Your task to perform on an android device: create a new album in the google photos Image 0: 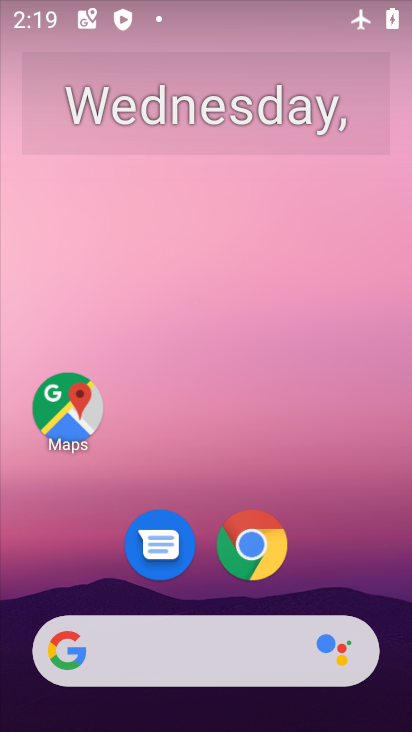
Step 0: drag from (331, 527) to (328, 189)
Your task to perform on an android device: create a new album in the google photos Image 1: 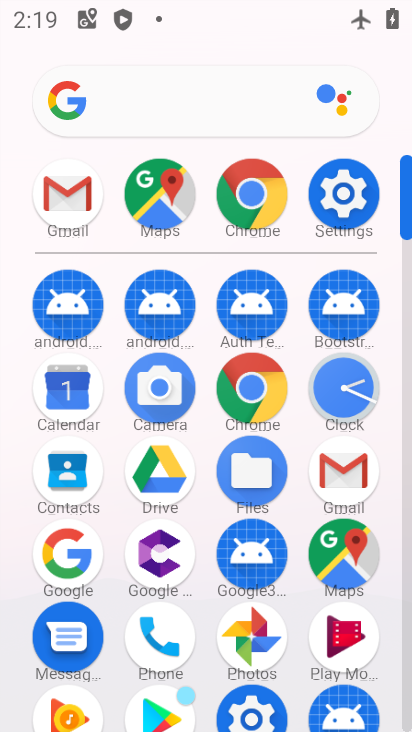
Step 1: click (260, 637)
Your task to perform on an android device: create a new album in the google photos Image 2: 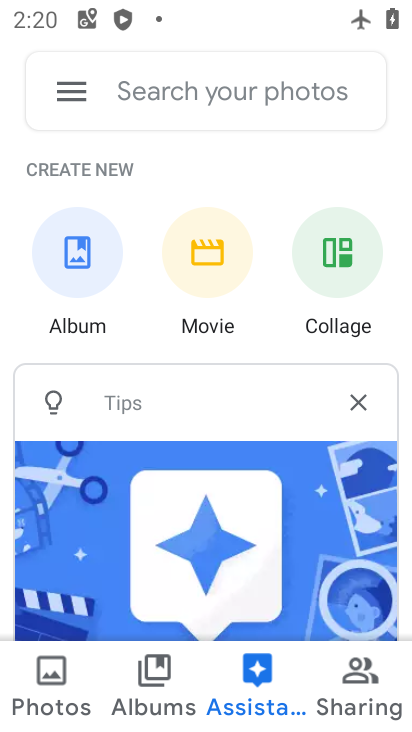
Step 2: click (80, 238)
Your task to perform on an android device: create a new album in the google photos Image 3: 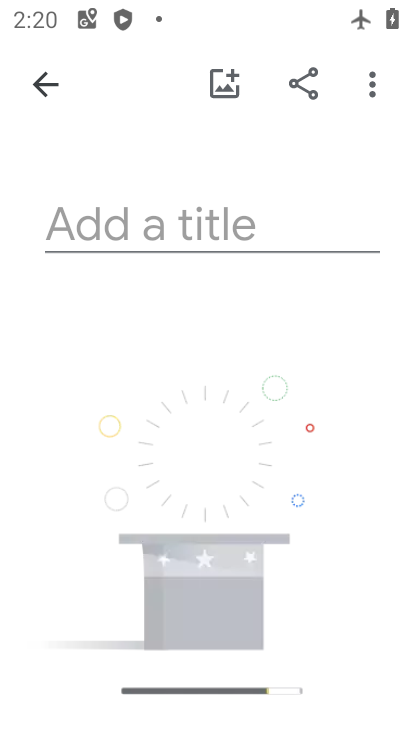
Step 3: click (217, 230)
Your task to perform on an android device: create a new album in the google photos Image 4: 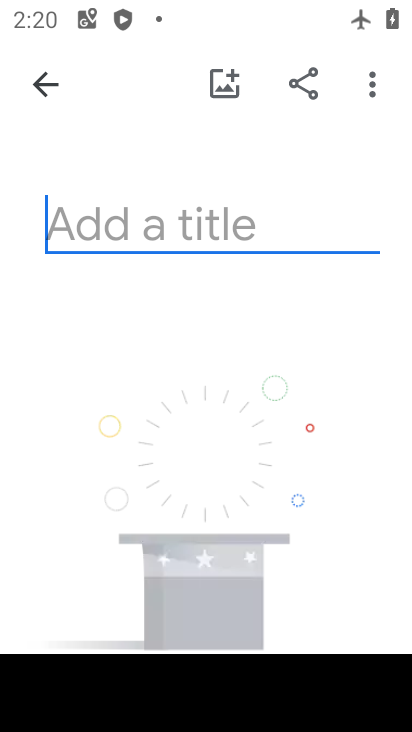
Step 4: type "kya hua"
Your task to perform on an android device: create a new album in the google photos Image 5: 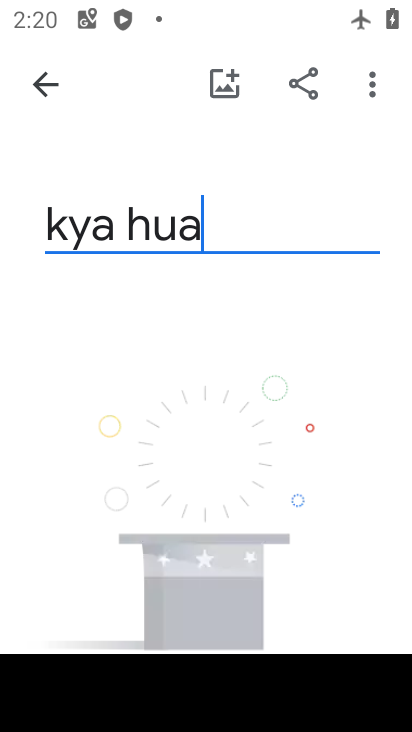
Step 5: drag from (221, 378) to (244, 24)
Your task to perform on an android device: create a new album in the google photos Image 6: 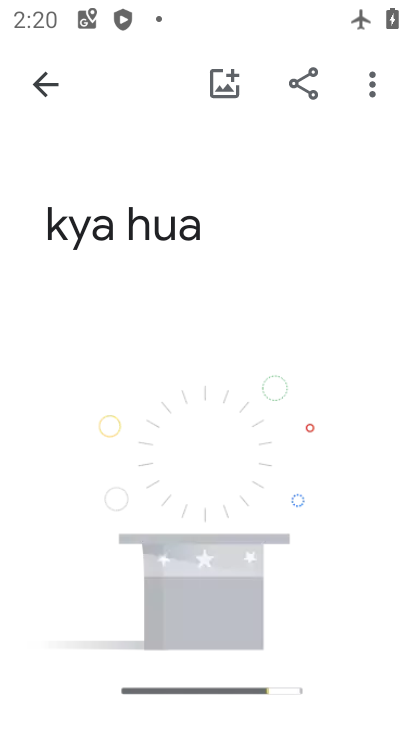
Step 6: click (250, 221)
Your task to perform on an android device: create a new album in the google photos Image 7: 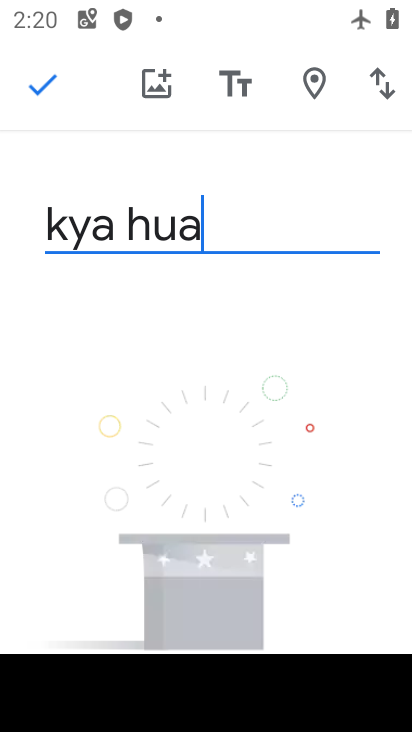
Step 7: click (162, 92)
Your task to perform on an android device: create a new album in the google photos Image 8: 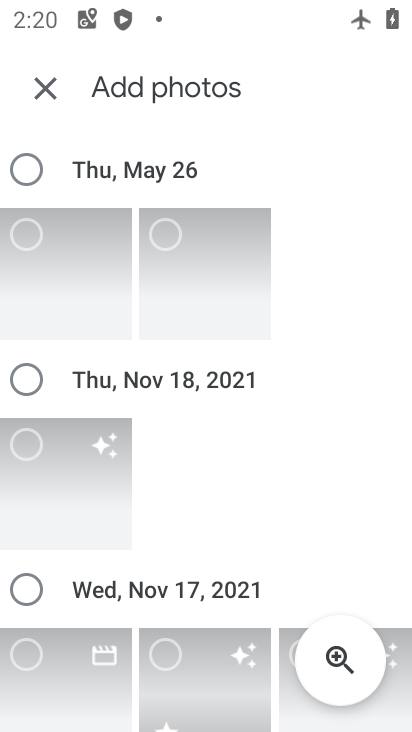
Step 8: click (70, 247)
Your task to perform on an android device: create a new album in the google photos Image 9: 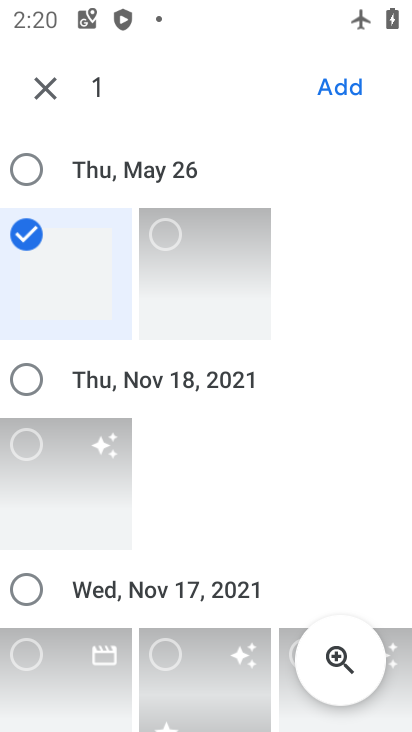
Step 9: click (347, 89)
Your task to perform on an android device: create a new album in the google photos Image 10: 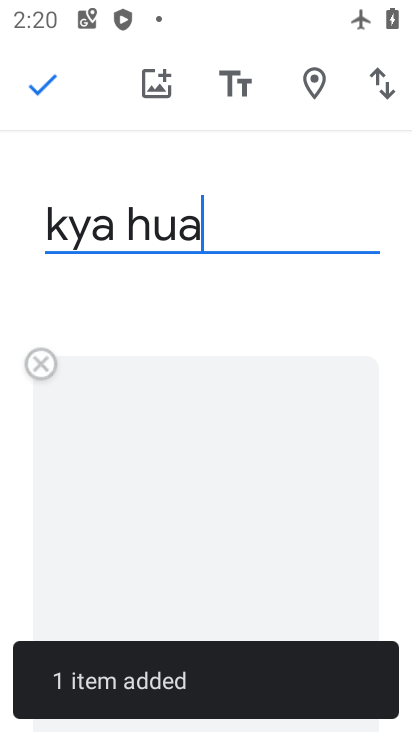
Step 10: click (46, 83)
Your task to perform on an android device: create a new album in the google photos Image 11: 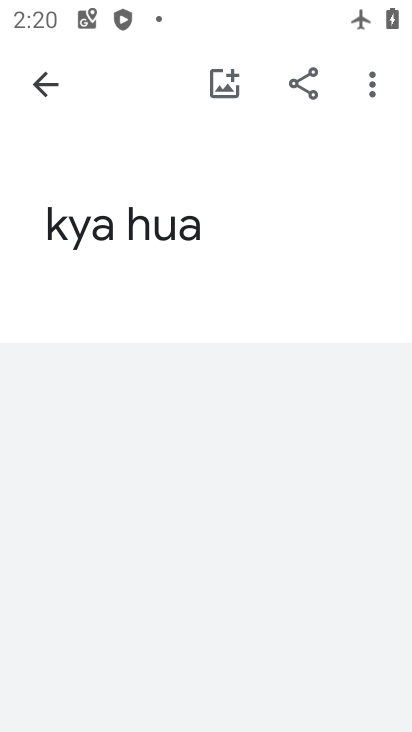
Step 11: task complete